Your task to perform on an android device: Open privacy settings Image 0: 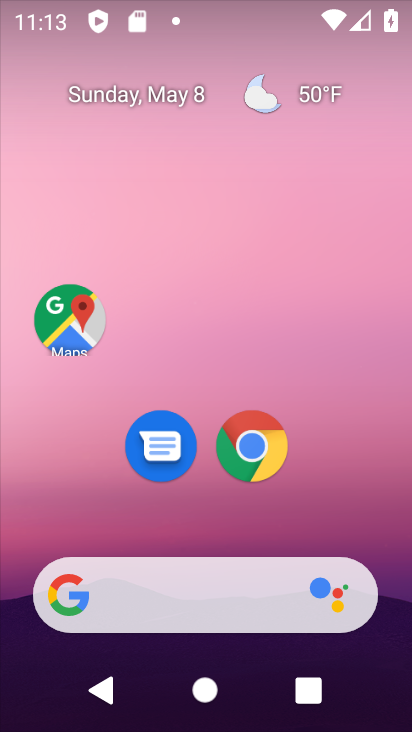
Step 0: click (248, 446)
Your task to perform on an android device: Open privacy settings Image 1: 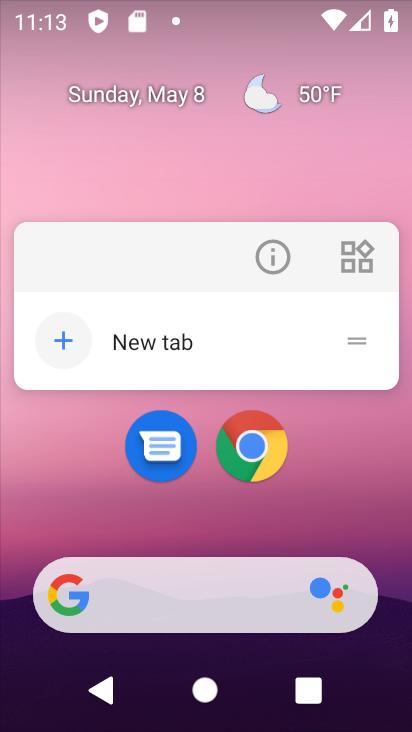
Step 1: click (240, 416)
Your task to perform on an android device: Open privacy settings Image 2: 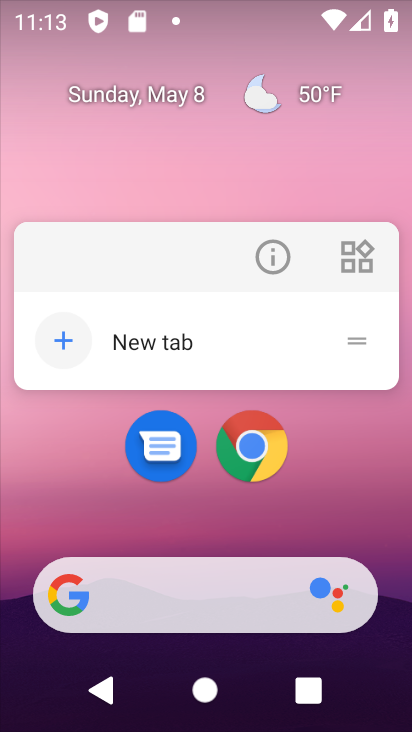
Step 2: click (253, 438)
Your task to perform on an android device: Open privacy settings Image 3: 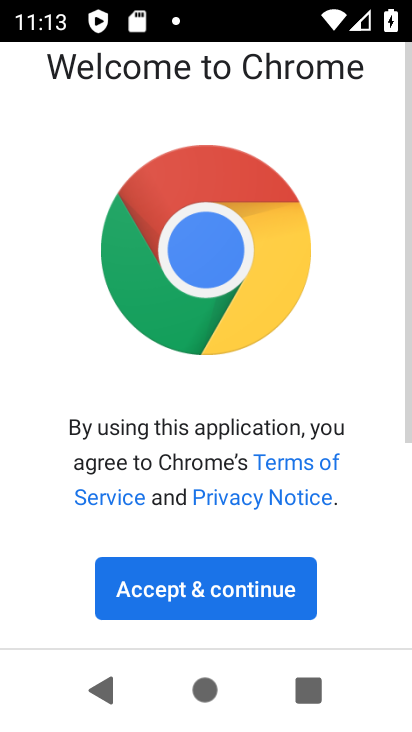
Step 3: click (259, 577)
Your task to perform on an android device: Open privacy settings Image 4: 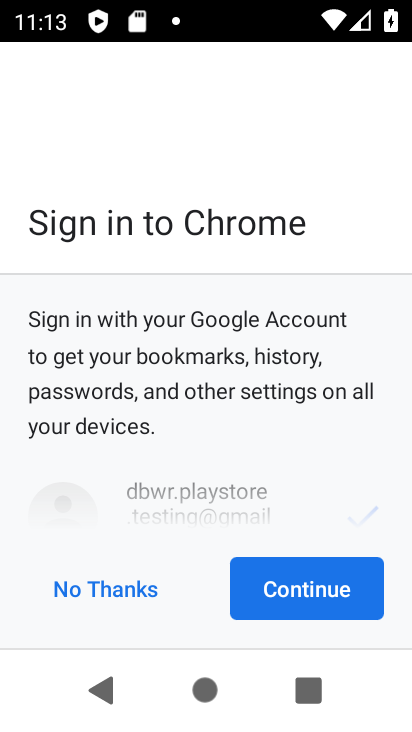
Step 4: click (322, 585)
Your task to perform on an android device: Open privacy settings Image 5: 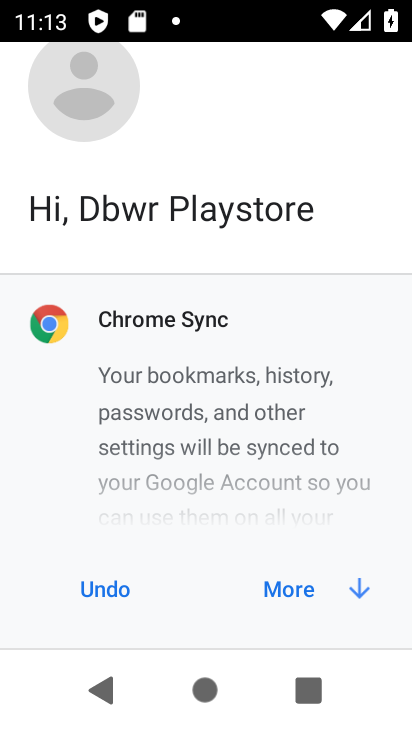
Step 5: click (322, 585)
Your task to perform on an android device: Open privacy settings Image 6: 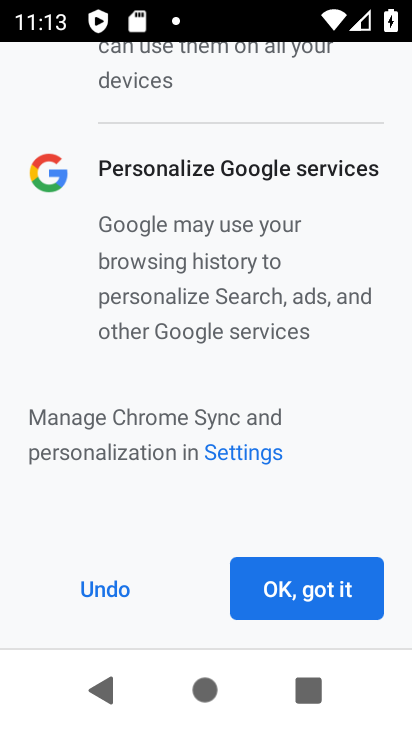
Step 6: click (322, 585)
Your task to perform on an android device: Open privacy settings Image 7: 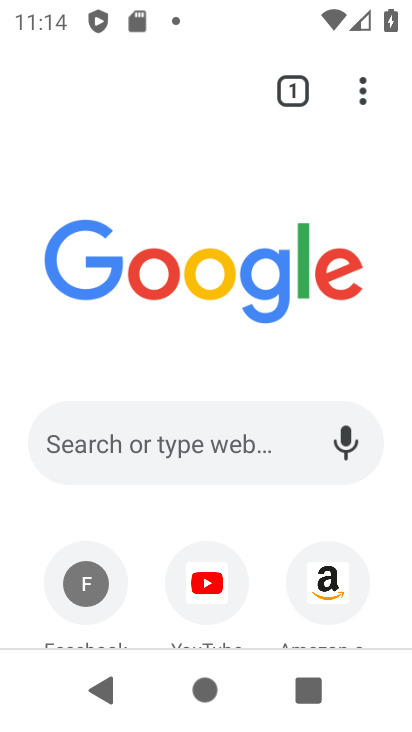
Step 7: click (350, 88)
Your task to perform on an android device: Open privacy settings Image 8: 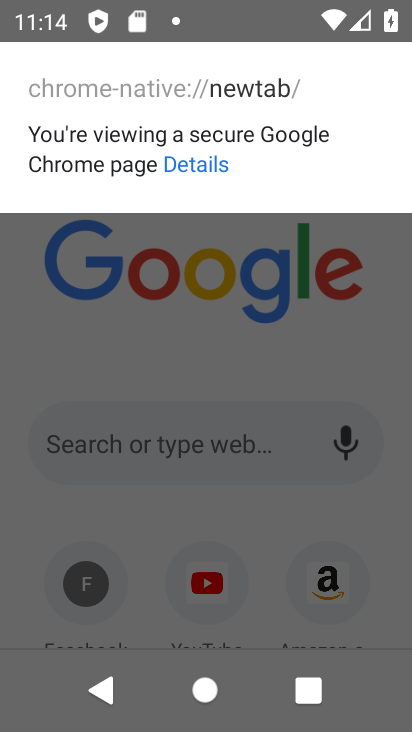
Step 8: click (218, 252)
Your task to perform on an android device: Open privacy settings Image 9: 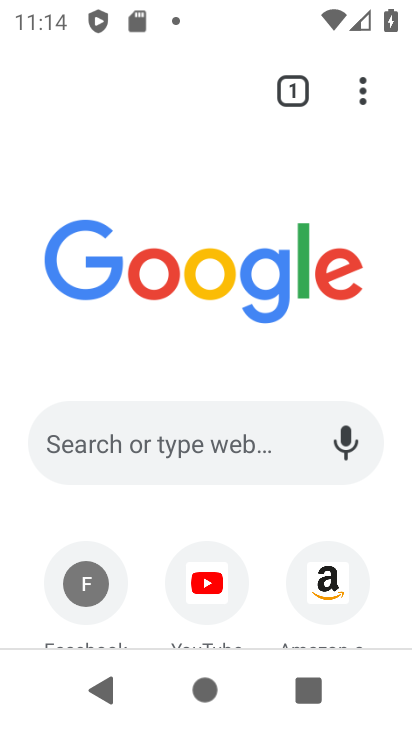
Step 9: click (365, 94)
Your task to perform on an android device: Open privacy settings Image 10: 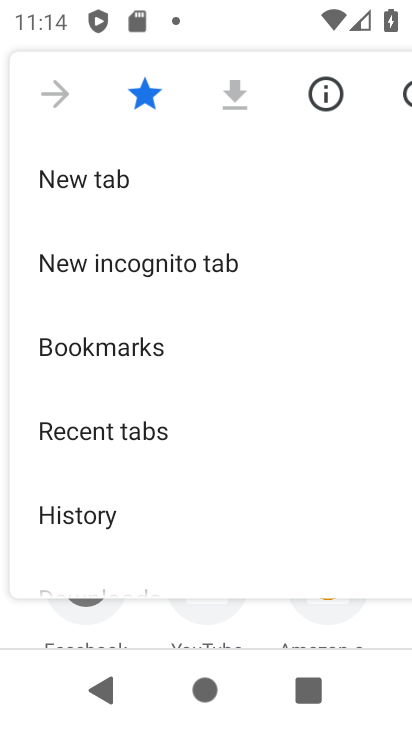
Step 10: drag from (136, 541) to (164, 250)
Your task to perform on an android device: Open privacy settings Image 11: 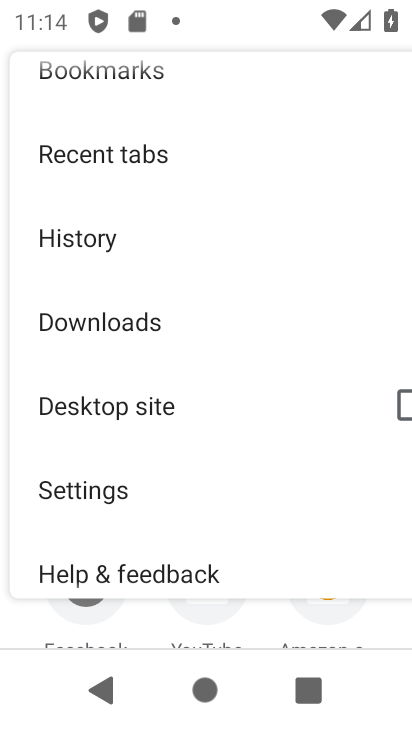
Step 11: click (106, 490)
Your task to perform on an android device: Open privacy settings Image 12: 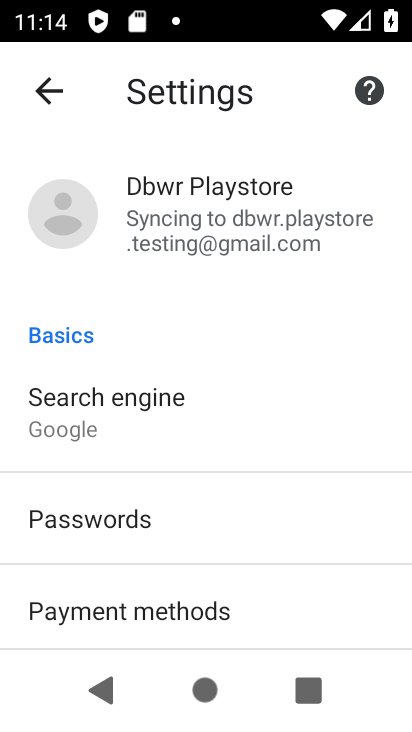
Step 12: drag from (164, 599) to (192, 361)
Your task to perform on an android device: Open privacy settings Image 13: 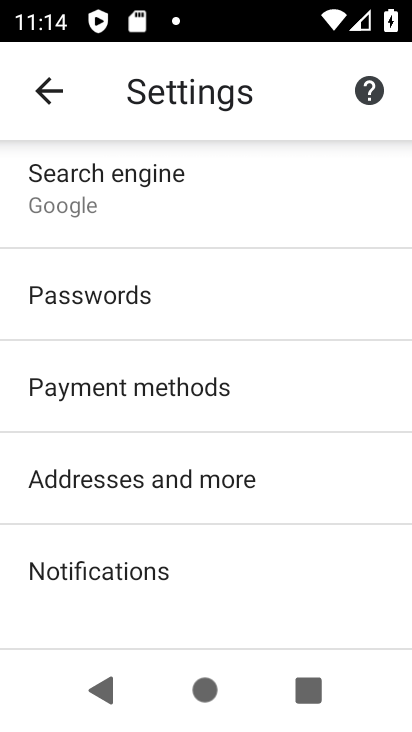
Step 13: drag from (188, 548) to (222, 380)
Your task to perform on an android device: Open privacy settings Image 14: 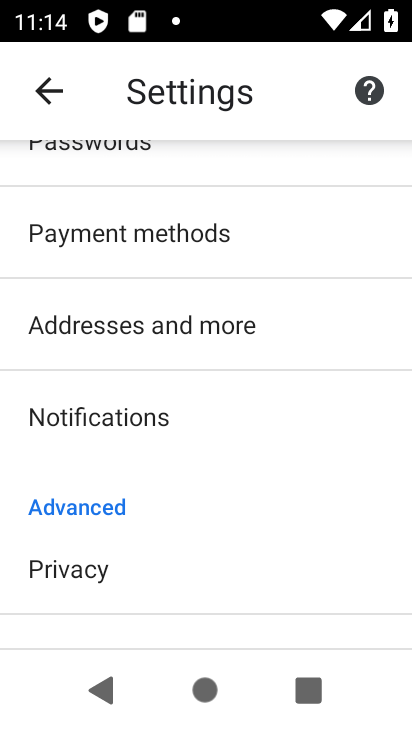
Step 14: click (167, 588)
Your task to perform on an android device: Open privacy settings Image 15: 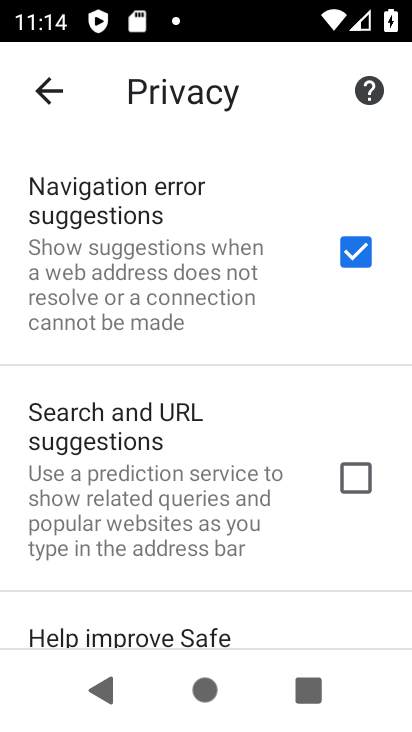
Step 15: task complete